Your task to perform on an android device: turn off javascript in the chrome app Image 0: 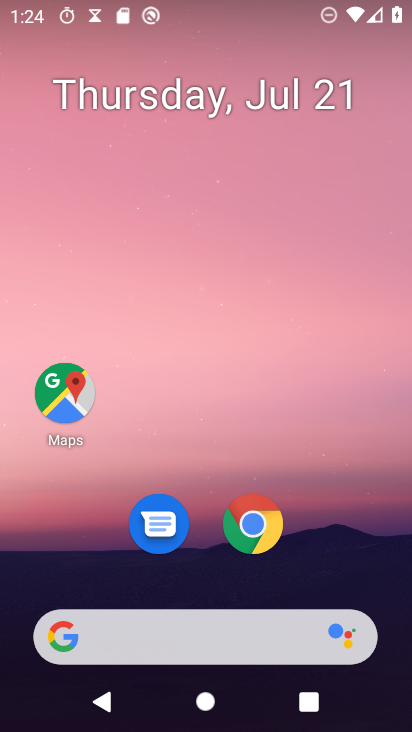
Step 0: press home button
Your task to perform on an android device: turn off javascript in the chrome app Image 1: 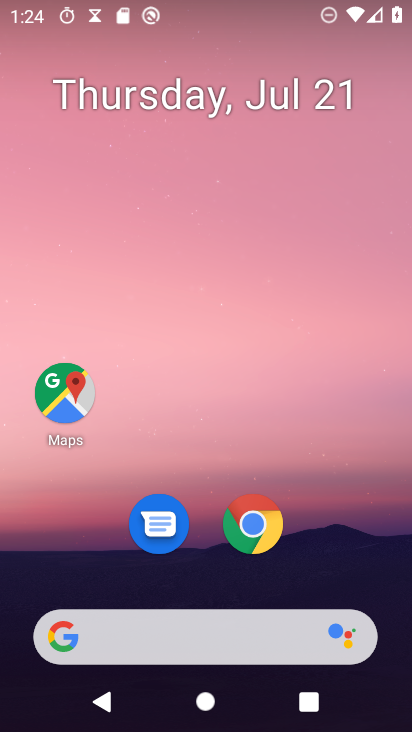
Step 1: click (246, 522)
Your task to perform on an android device: turn off javascript in the chrome app Image 2: 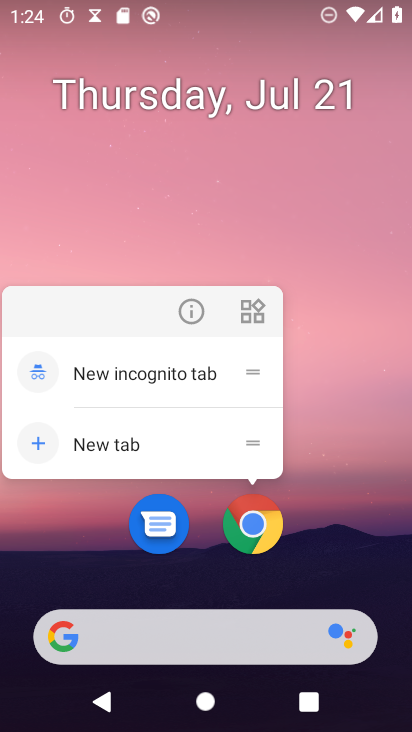
Step 2: click (254, 517)
Your task to perform on an android device: turn off javascript in the chrome app Image 3: 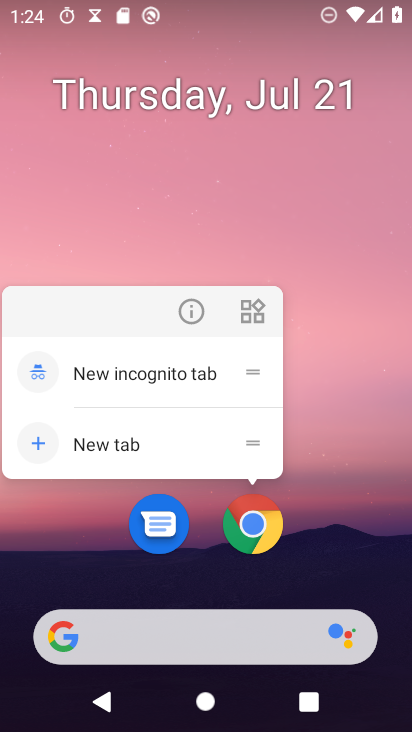
Step 3: click (249, 529)
Your task to perform on an android device: turn off javascript in the chrome app Image 4: 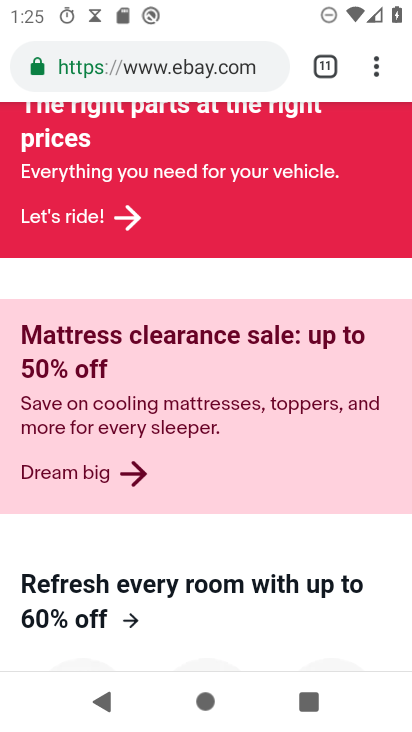
Step 4: drag from (376, 66) to (221, 529)
Your task to perform on an android device: turn off javascript in the chrome app Image 5: 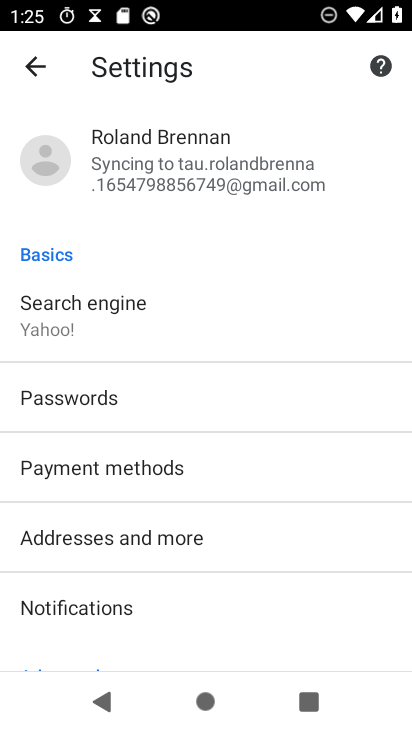
Step 5: drag from (163, 584) to (246, 122)
Your task to perform on an android device: turn off javascript in the chrome app Image 6: 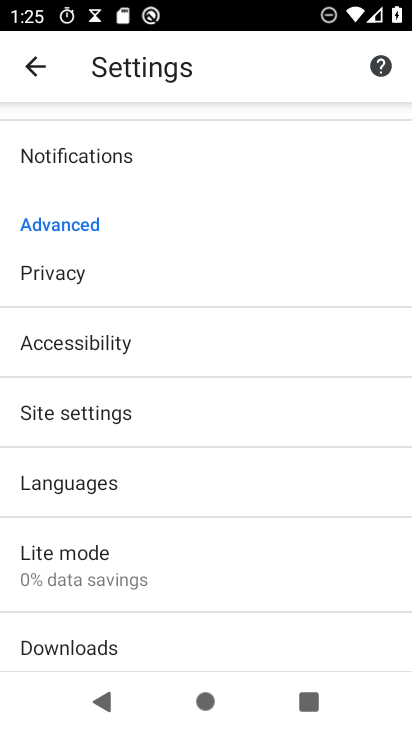
Step 6: click (87, 423)
Your task to perform on an android device: turn off javascript in the chrome app Image 7: 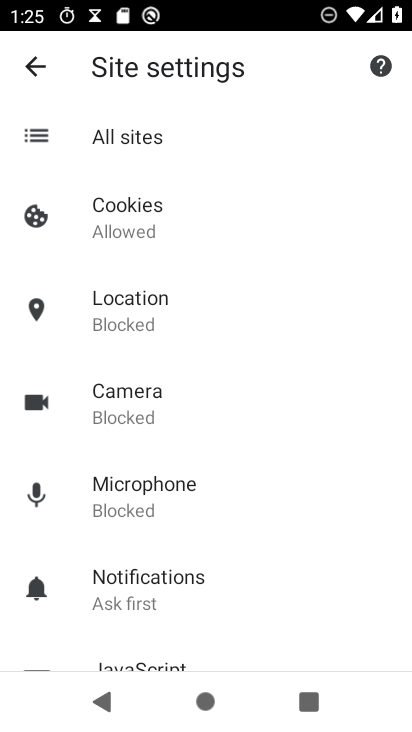
Step 7: drag from (210, 557) to (291, 309)
Your task to perform on an android device: turn off javascript in the chrome app Image 8: 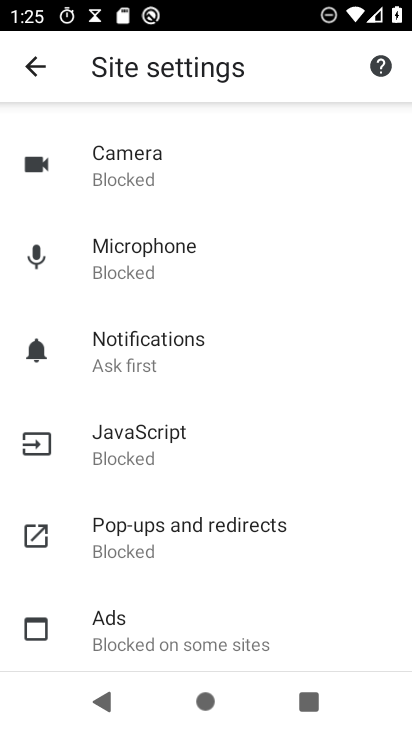
Step 8: click (120, 452)
Your task to perform on an android device: turn off javascript in the chrome app Image 9: 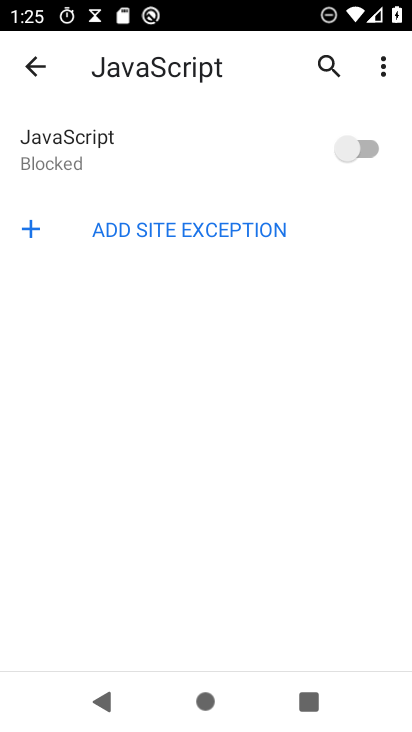
Step 9: task complete